Your task to perform on an android device: Open Maps and search for coffee Image 0: 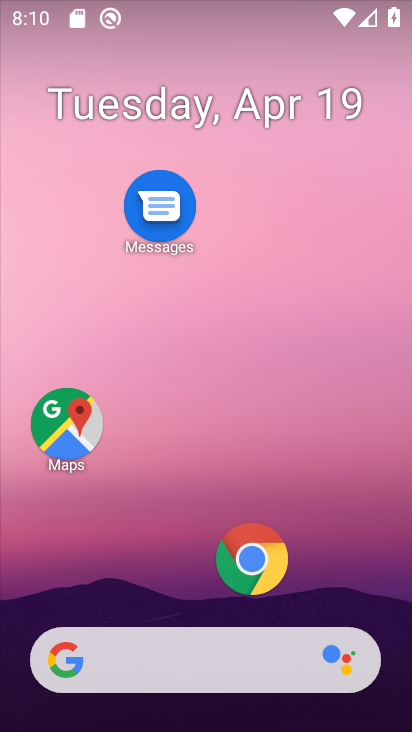
Step 0: click (165, 53)
Your task to perform on an android device: Open Maps and search for coffee Image 1: 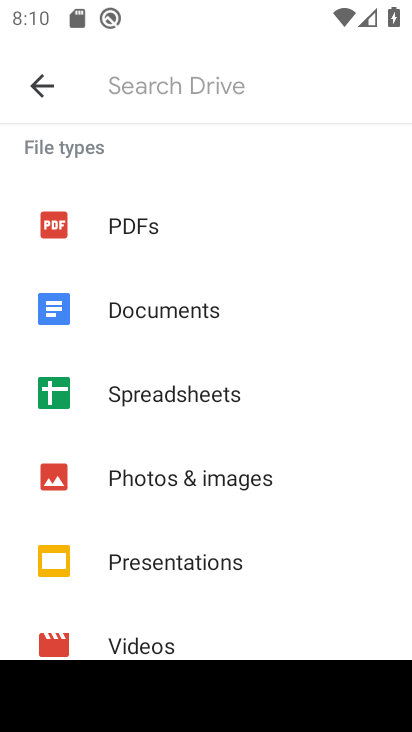
Step 1: press home button
Your task to perform on an android device: Open Maps and search for coffee Image 2: 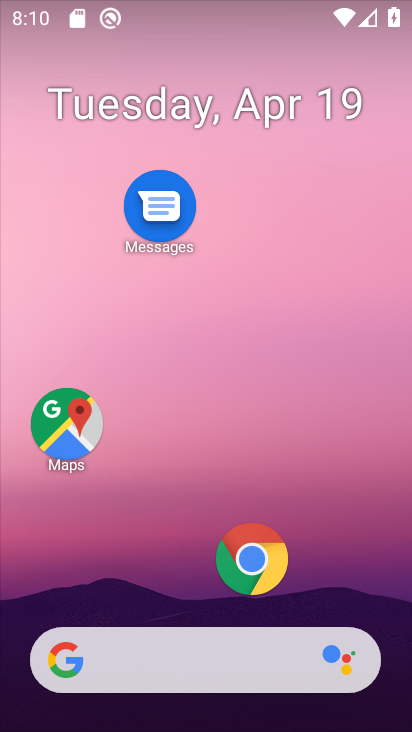
Step 2: drag from (162, 678) to (213, 178)
Your task to perform on an android device: Open Maps and search for coffee Image 3: 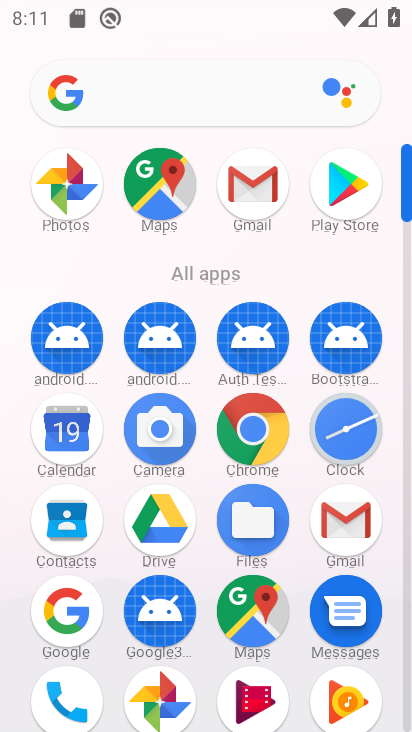
Step 3: click (167, 187)
Your task to perform on an android device: Open Maps and search for coffee Image 4: 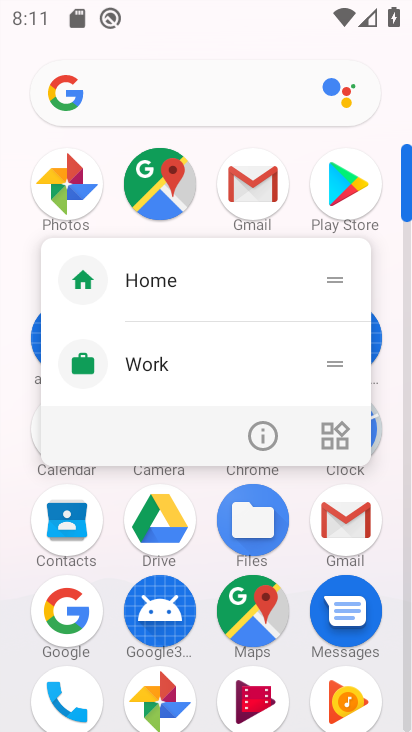
Step 4: click (167, 187)
Your task to perform on an android device: Open Maps and search for coffee Image 5: 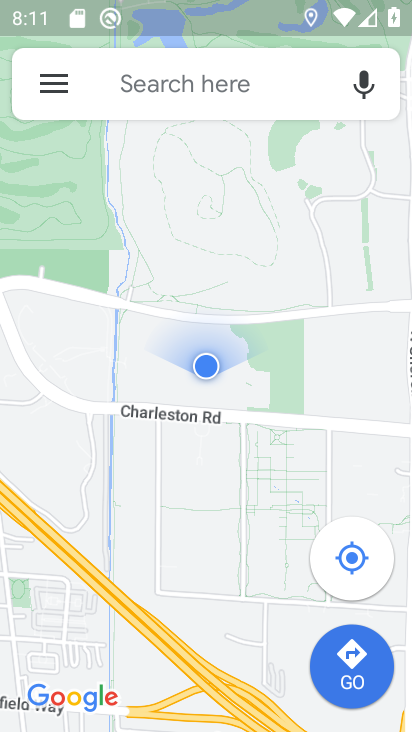
Step 5: click (233, 77)
Your task to perform on an android device: Open Maps and search for coffee Image 6: 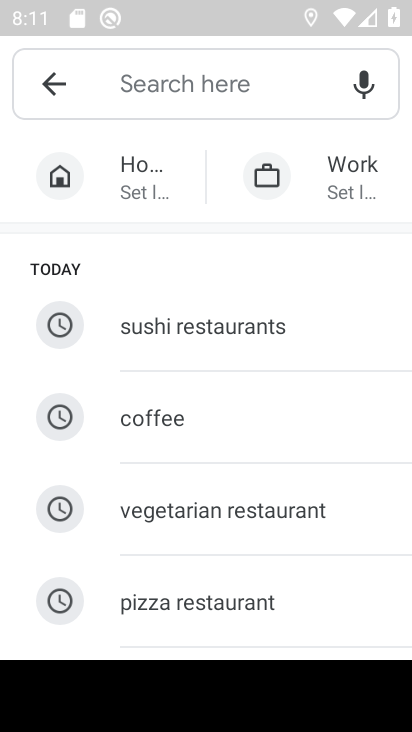
Step 6: type "coffee"
Your task to perform on an android device: Open Maps and search for coffee Image 7: 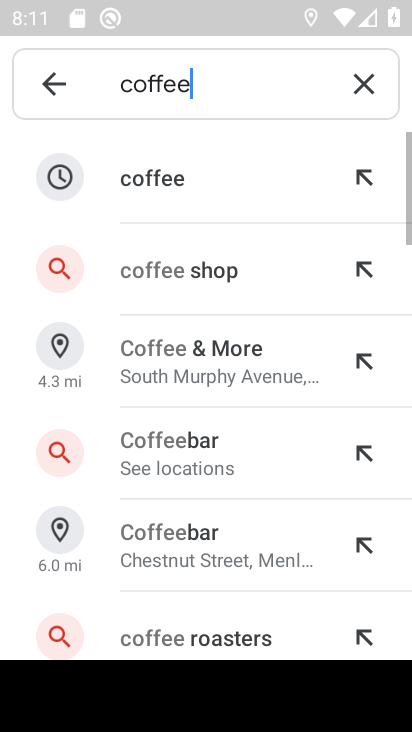
Step 7: click (174, 165)
Your task to perform on an android device: Open Maps and search for coffee Image 8: 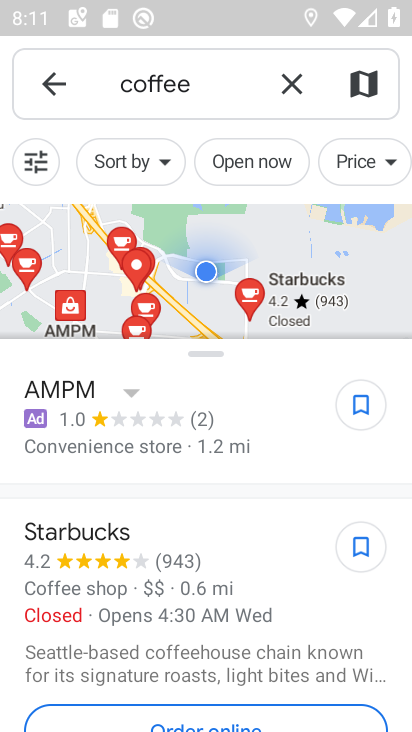
Step 8: task complete